Your task to perform on an android device: toggle improve location accuracy Image 0: 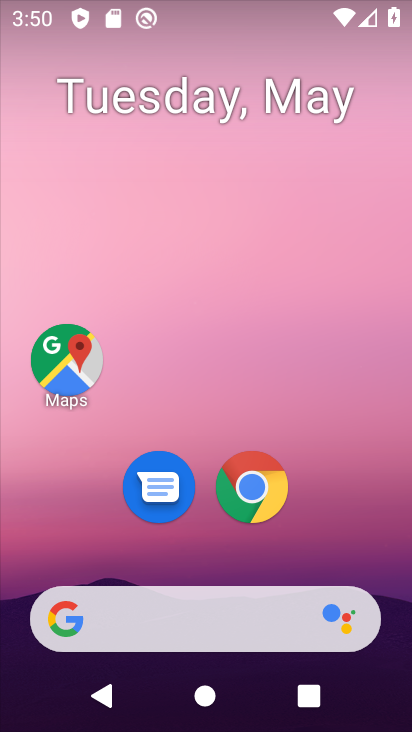
Step 0: drag from (335, 511) to (298, 91)
Your task to perform on an android device: toggle improve location accuracy Image 1: 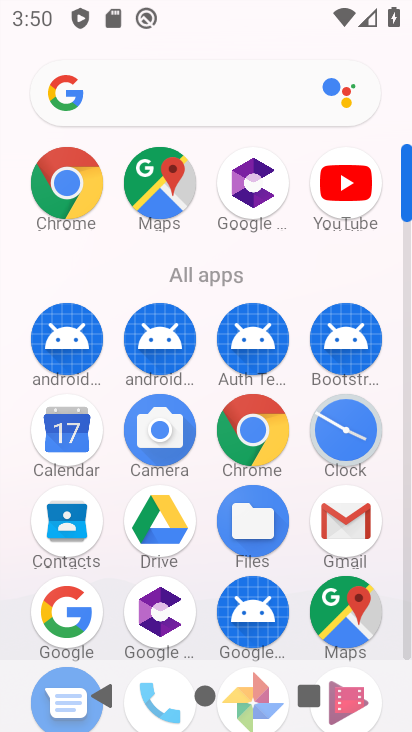
Step 1: drag from (203, 582) to (214, 204)
Your task to perform on an android device: toggle improve location accuracy Image 2: 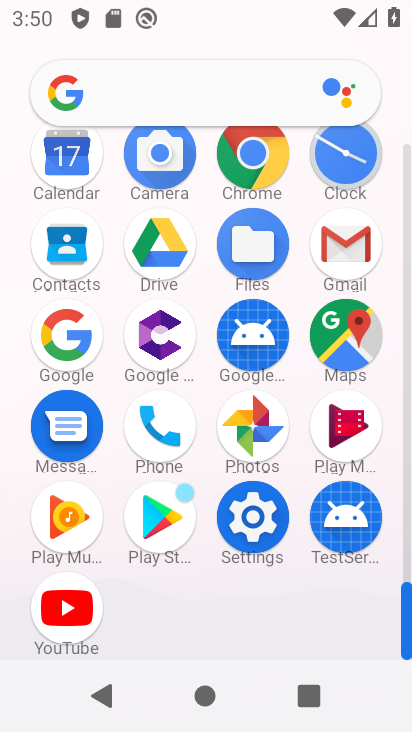
Step 2: click (249, 538)
Your task to perform on an android device: toggle improve location accuracy Image 3: 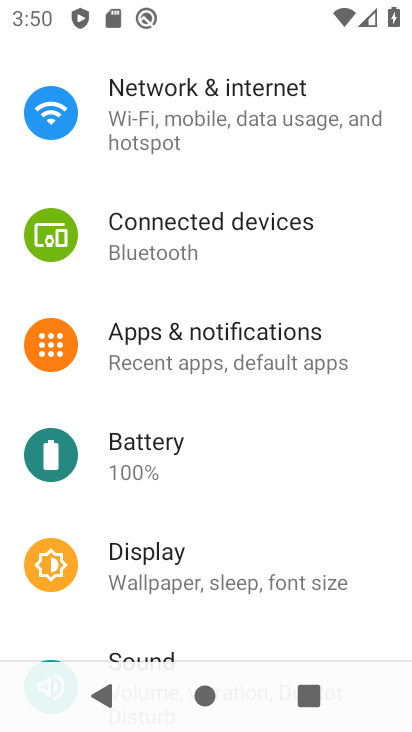
Step 3: drag from (255, 563) to (300, 153)
Your task to perform on an android device: toggle improve location accuracy Image 4: 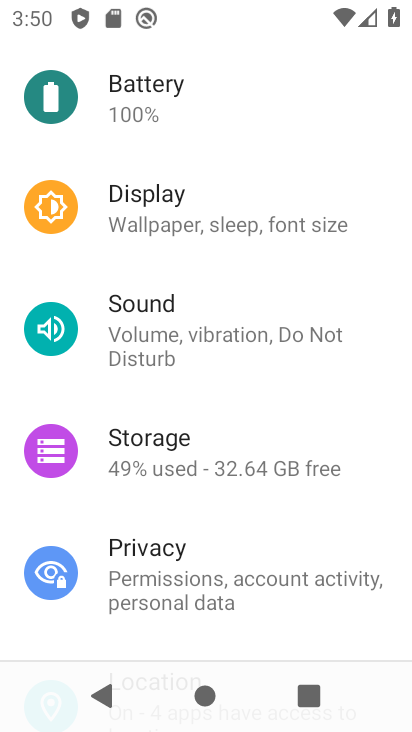
Step 4: drag from (205, 546) to (232, 220)
Your task to perform on an android device: toggle improve location accuracy Image 5: 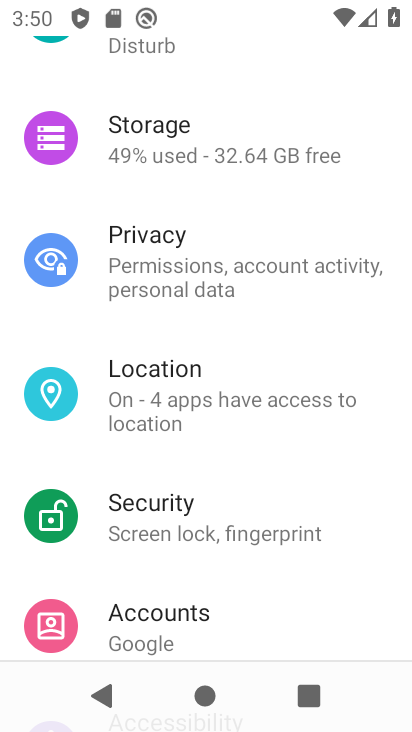
Step 5: click (195, 370)
Your task to perform on an android device: toggle improve location accuracy Image 6: 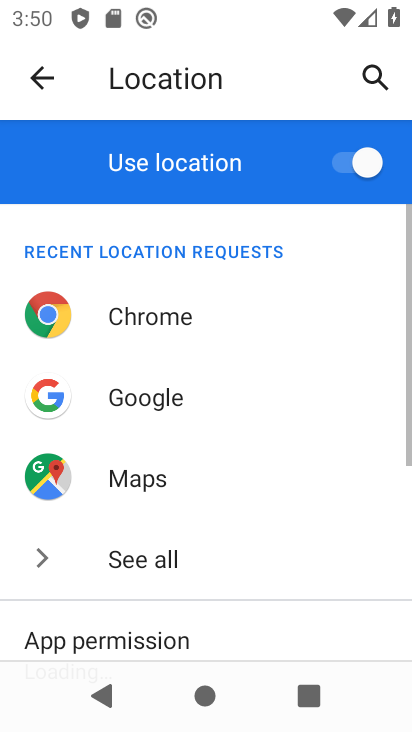
Step 6: drag from (331, 534) to (344, 70)
Your task to perform on an android device: toggle improve location accuracy Image 7: 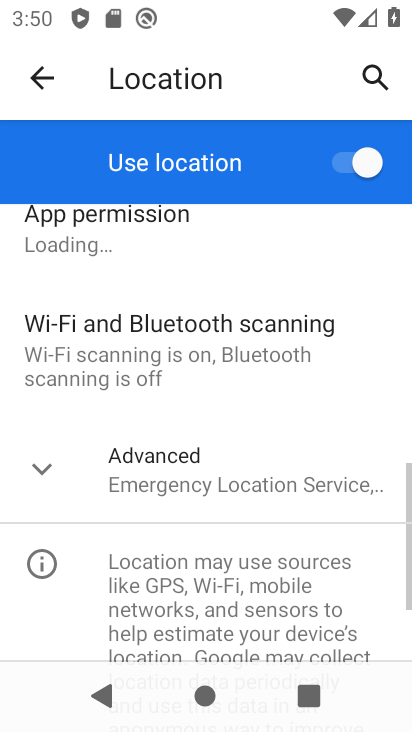
Step 7: click (273, 494)
Your task to perform on an android device: toggle improve location accuracy Image 8: 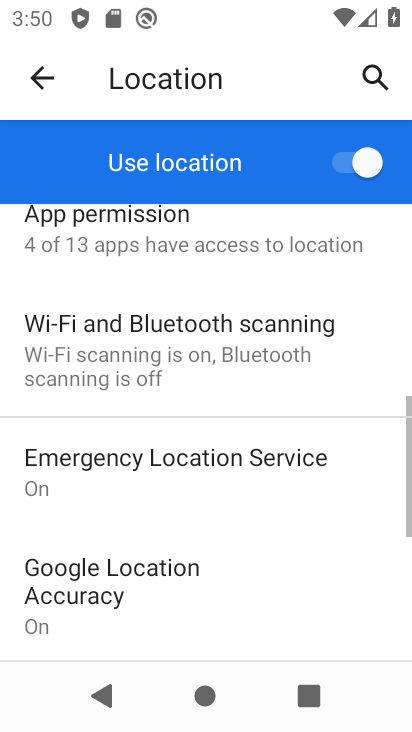
Step 8: drag from (340, 605) to (381, 227)
Your task to perform on an android device: toggle improve location accuracy Image 9: 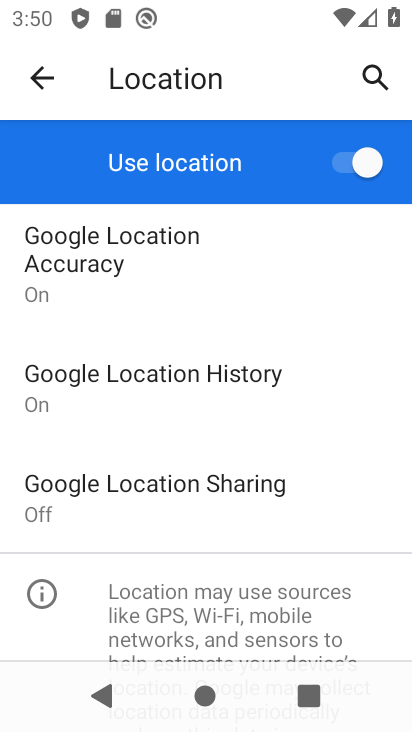
Step 9: click (87, 235)
Your task to perform on an android device: toggle improve location accuracy Image 10: 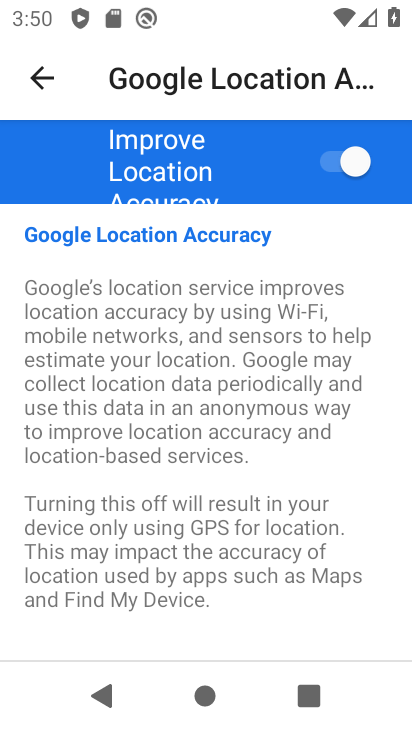
Step 10: click (353, 144)
Your task to perform on an android device: toggle improve location accuracy Image 11: 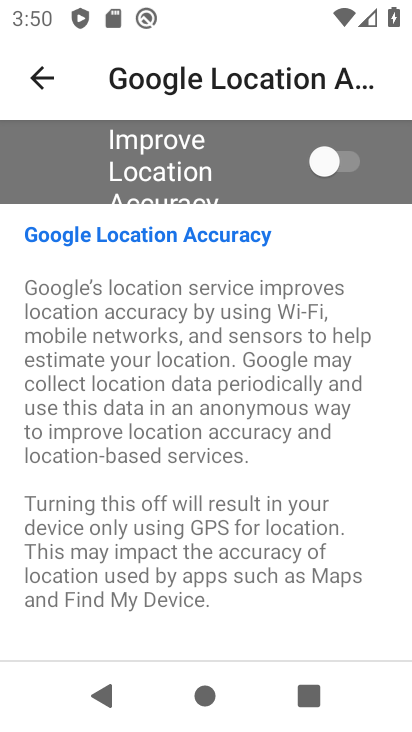
Step 11: task complete